Your task to perform on an android device: set the timer Image 0: 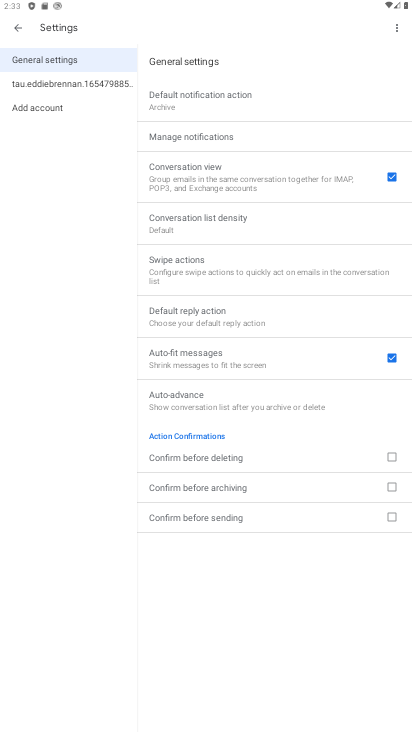
Step 0: press home button
Your task to perform on an android device: set the timer Image 1: 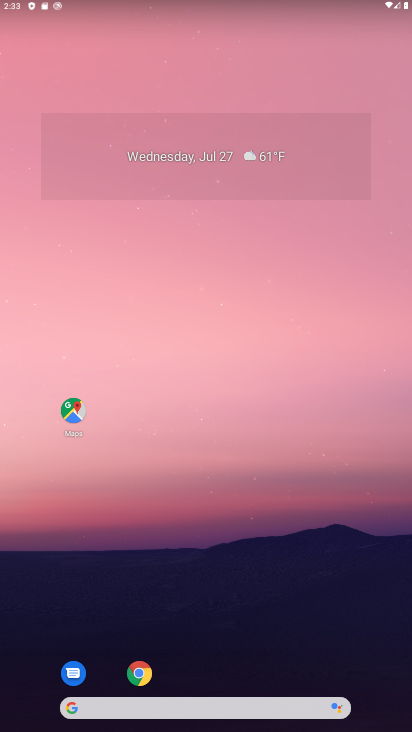
Step 1: drag from (37, 676) to (256, 36)
Your task to perform on an android device: set the timer Image 2: 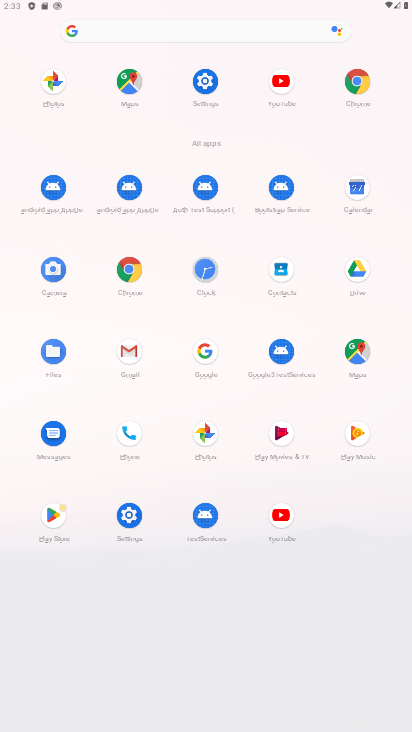
Step 2: click (206, 271)
Your task to perform on an android device: set the timer Image 3: 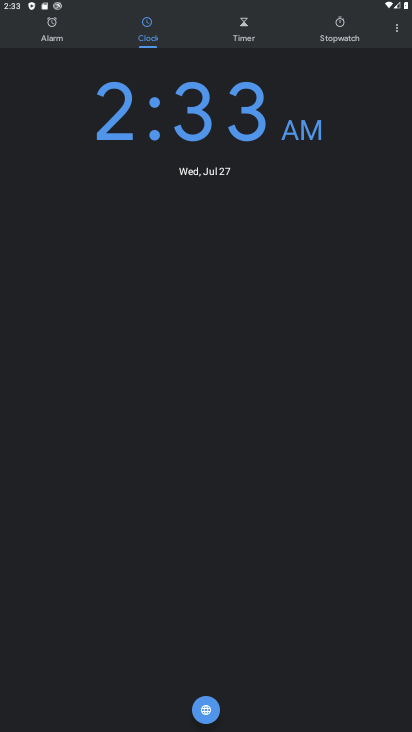
Step 3: click (249, 36)
Your task to perform on an android device: set the timer Image 4: 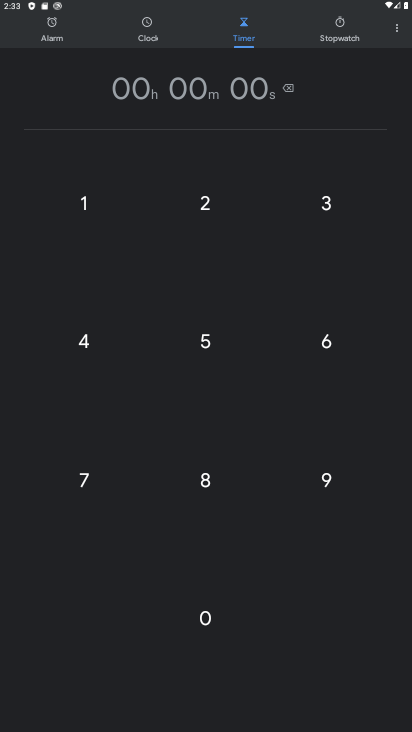
Step 4: click (170, 347)
Your task to perform on an android device: set the timer Image 5: 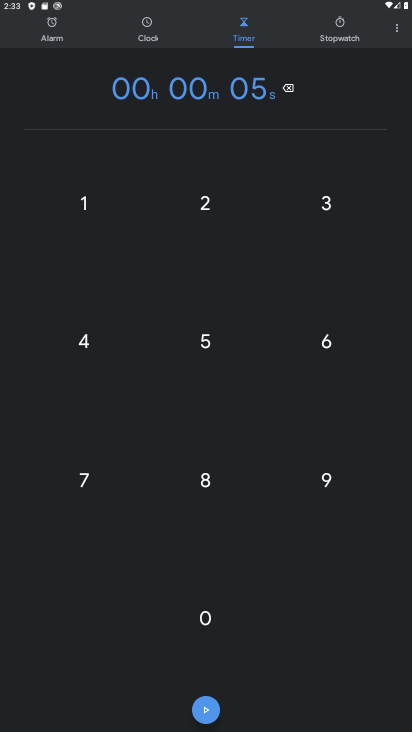
Step 5: click (54, 430)
Your task to perform on an android device: set the timer Image 6: 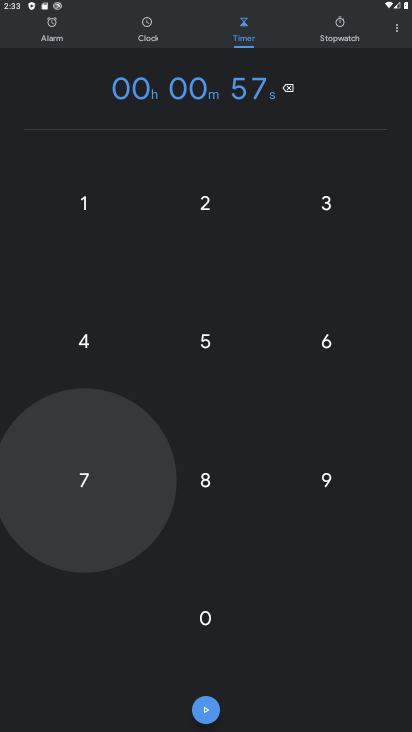
Step 6: click (240, 411)
Your task to perform on an android device: set the timer Image 7: 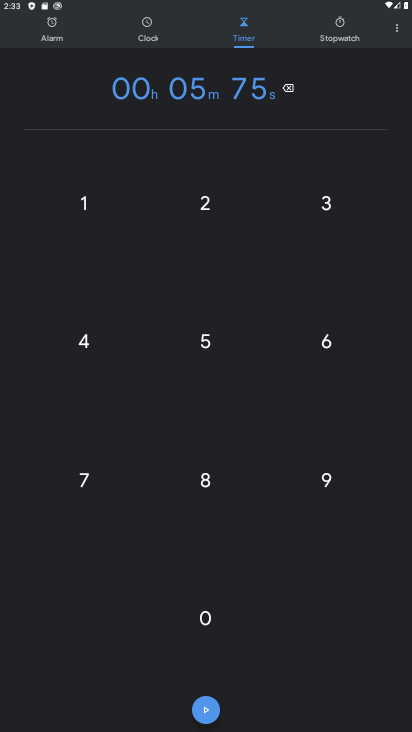
Step 7: click (212, 715)
Your task to perform on an android device: set the timer Image 8: 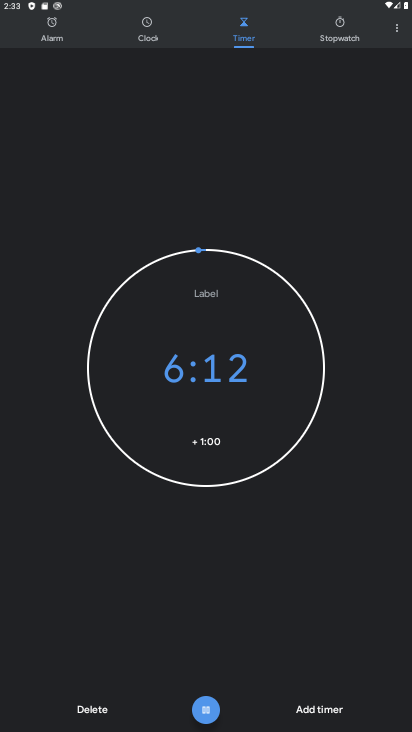
Step 8: task complete